Your task to perform on an android device: Do I have any events tomorrow? Image 0: 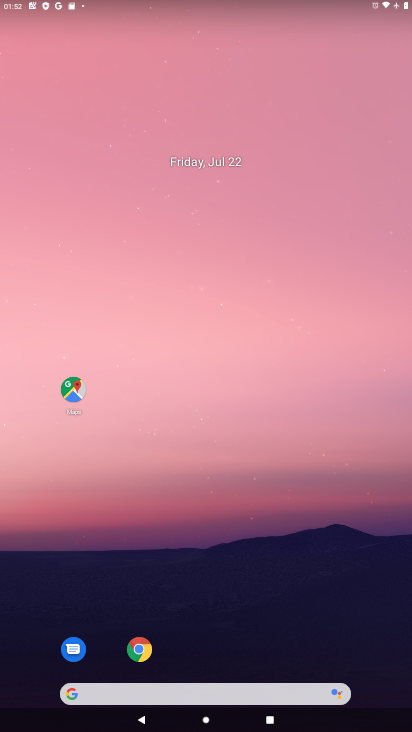
Step 0: drag from (301, 534) to (256, 95)
Your task to perform on an android device: Do I have any events tomorrow? Image 1: 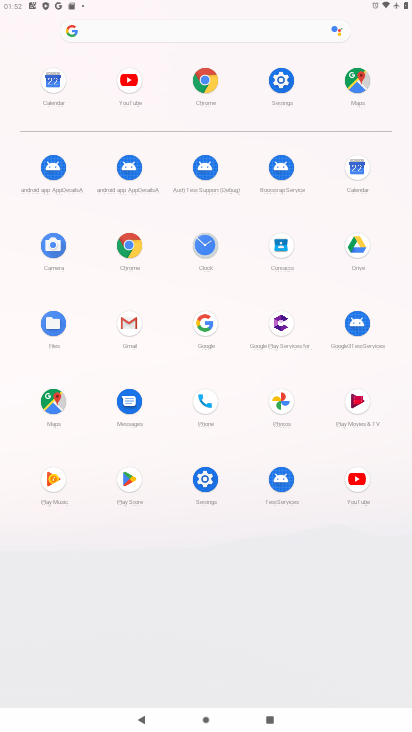
Step 1: click (355, 167)
Your task to perform on an android device: Do I have any events tomorrow? Image 2: 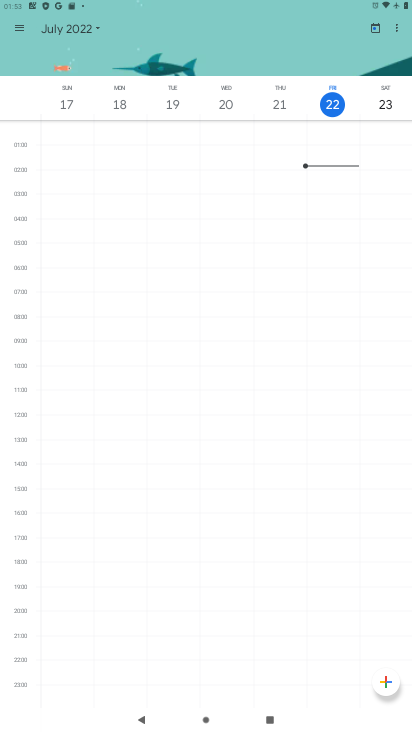
Step 2: click (376, 101)
Your task to perform on an android device: Do I have any events tomorrow? Image 3: 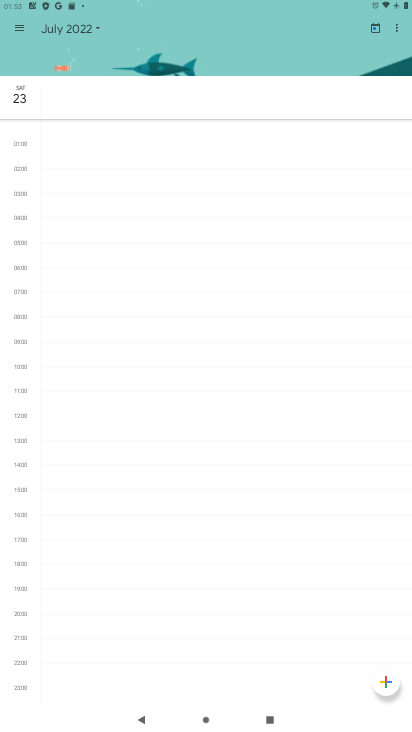
Step 3: task complete